Your task to perform on an android device: toggle priority inbox in the gmail app Image 0: 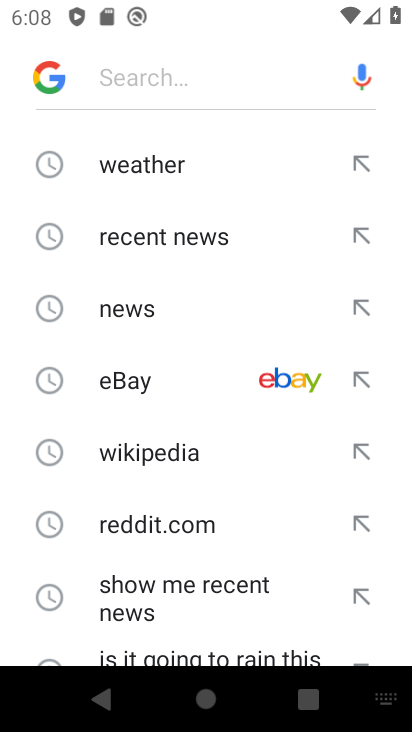
Step 0: press home button
Your task to perform on an android device: toggle priority inbox in the gmail app Image 1: 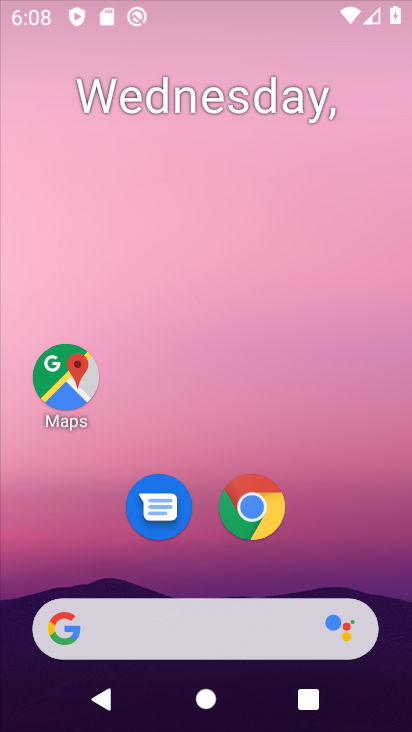
Step 1: drag from (148, 593) to (149, 68)
Your task to perform on an android device: toggle priority inbox in the gmail app Image 2: 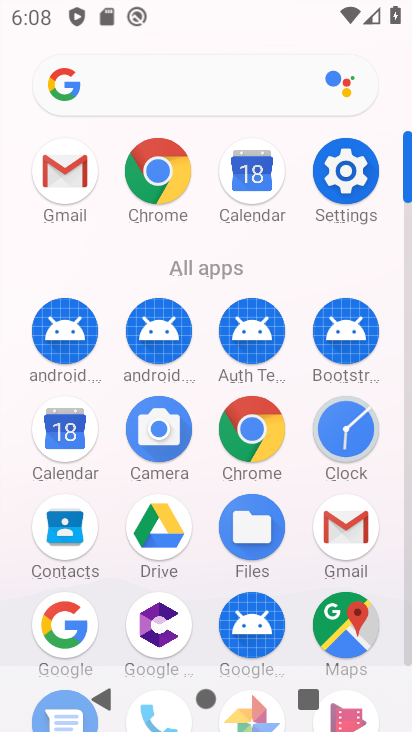
Step 2: click (345, 541)
Your task to perform on an android device: toggle priority inbox in the gmail app Image 3: 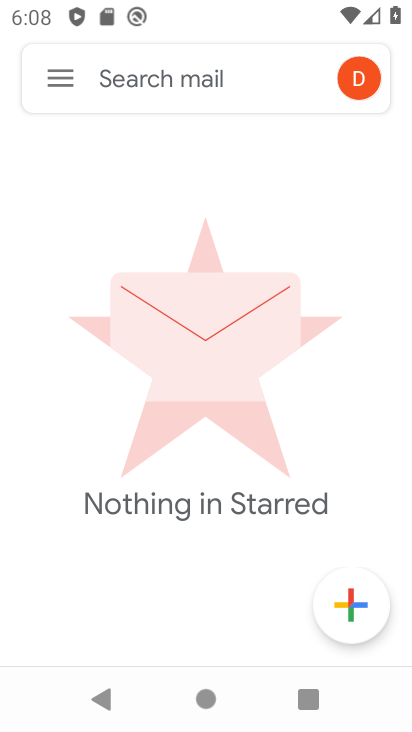
Step 3: click (59, 85)
Your task to perform on an android device: toggle priority inbox in the gmail app Image 4: 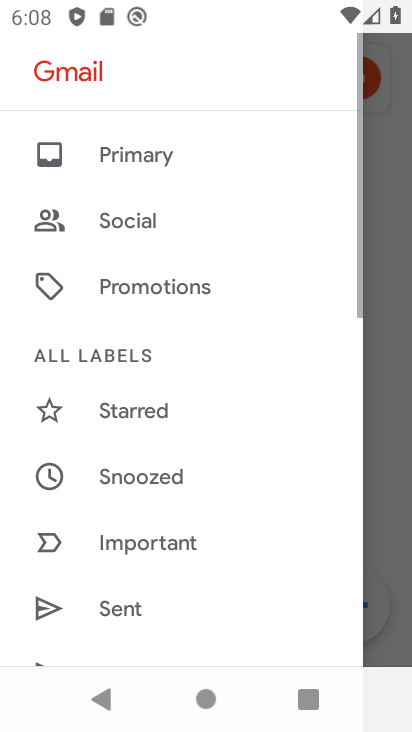
Step 4: drag from (176, 622) to (182, 67)
Your task to perform on an android device: toggle priority inbox in the gmail app Image 5: 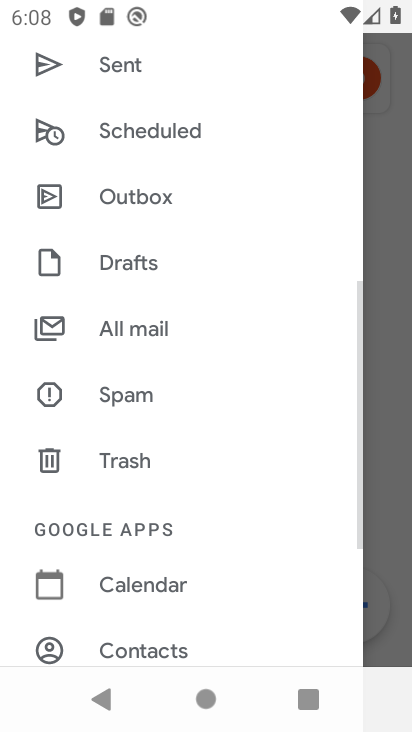
Step 5: drag from (163, 630) to (158, 88)
Your task to perform on an android device: toggle priority inbox in the gmail app Image 6: 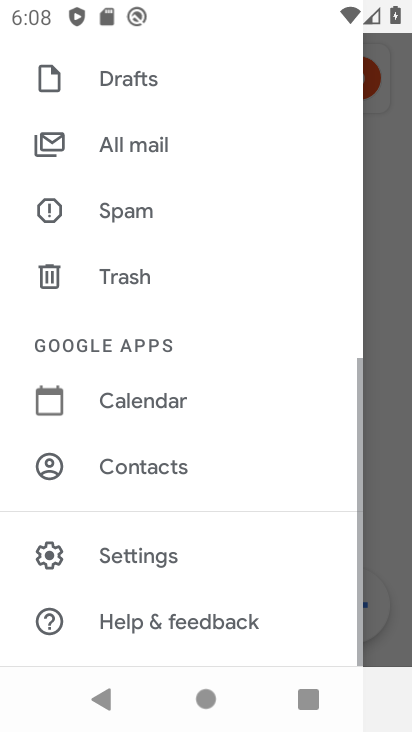
Step 6: click (149, 563)
Your task to perform on an android device: toggle priority inbox in the gmail app Image 7: 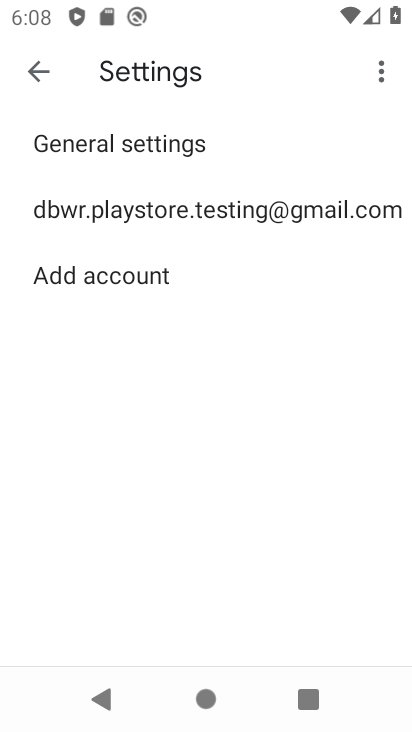
Step 7: click (126, 219)
Your task to perform on an android device: toggle priority inbox in the gmail app Image 8: 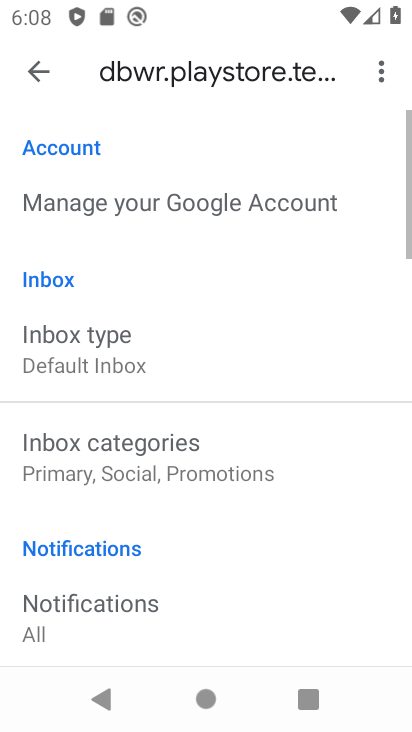
Step 8: click (133, 360)
Your task to perform on an android device: toggle priority inbox in the gmail app Image 9: 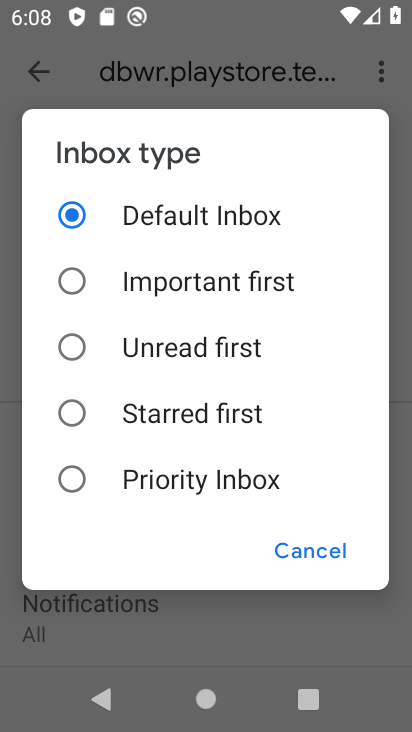
Step 9: click (81, 480)
Your task to perform on an android device: toggle priority inbox in the gmail app Image 10: 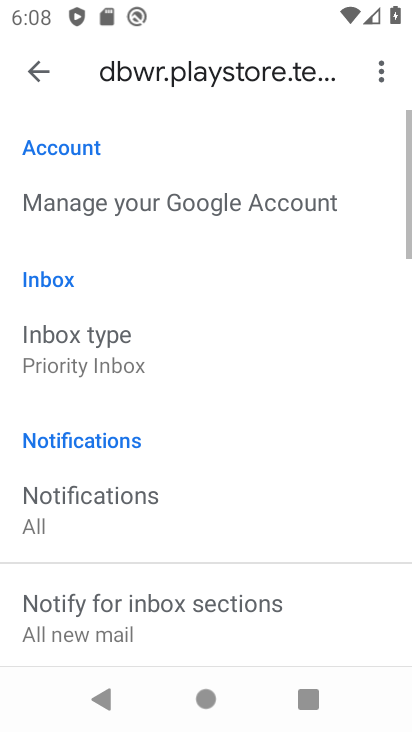
Step 10: task complete